Your task to perform on an android device: open app "YouTube Kids" (install if not already installed), go to login, and select forgot password Image 0: 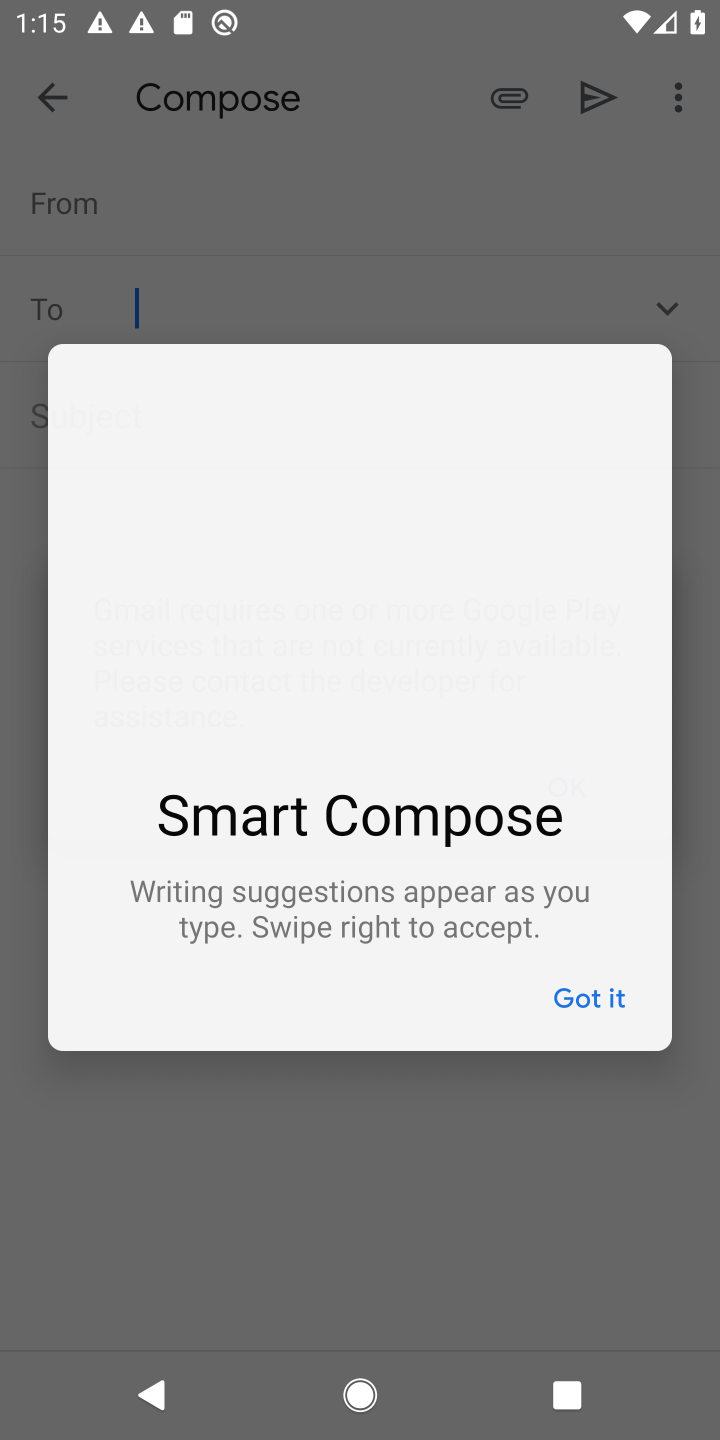
Step 0: press home button
Your task to perform on an android device: open app "YouTube Kids" (install if not already installed), go to login, and select forgot password Image 1: 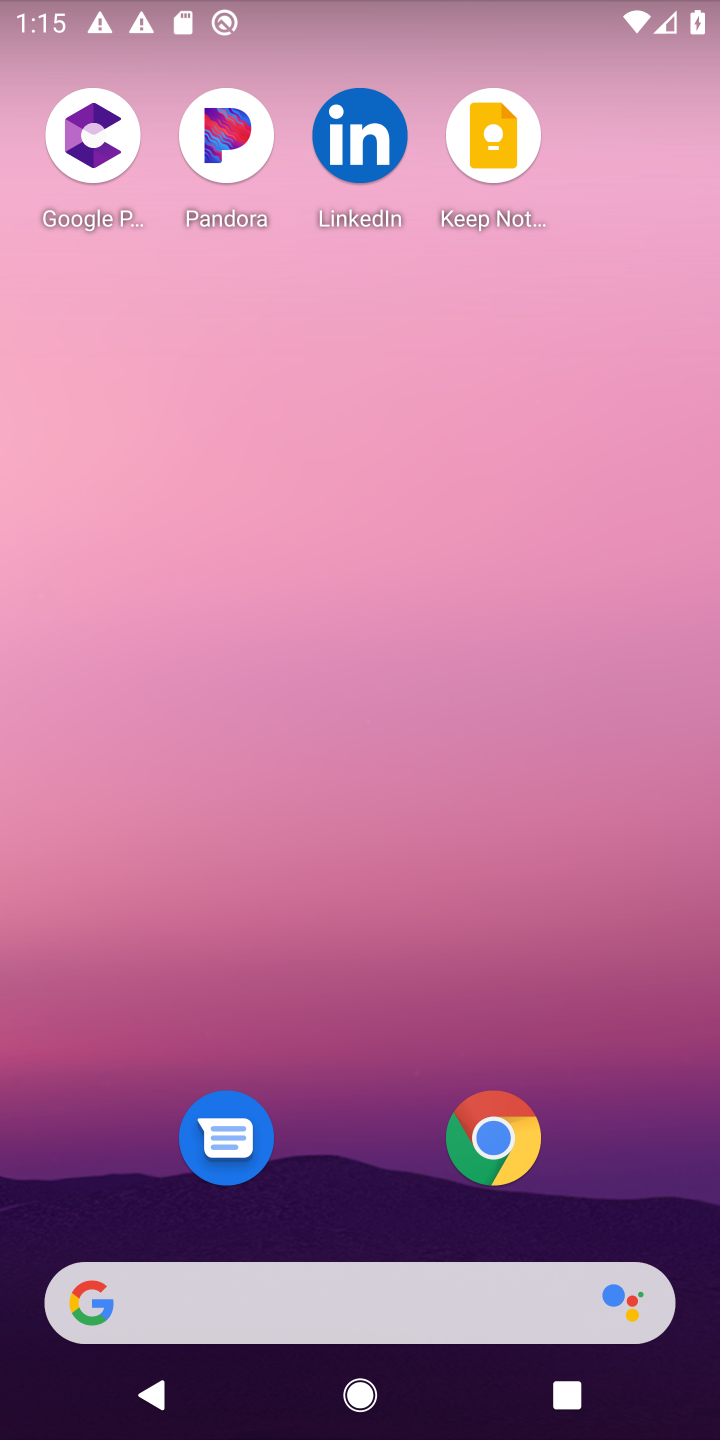
Step 1: drag from (646, 988) to (651, 104)
Your task to perform on an android device: open app "YouTube Kids" (install if not already installed), go to login, and select forgot password Image 2: 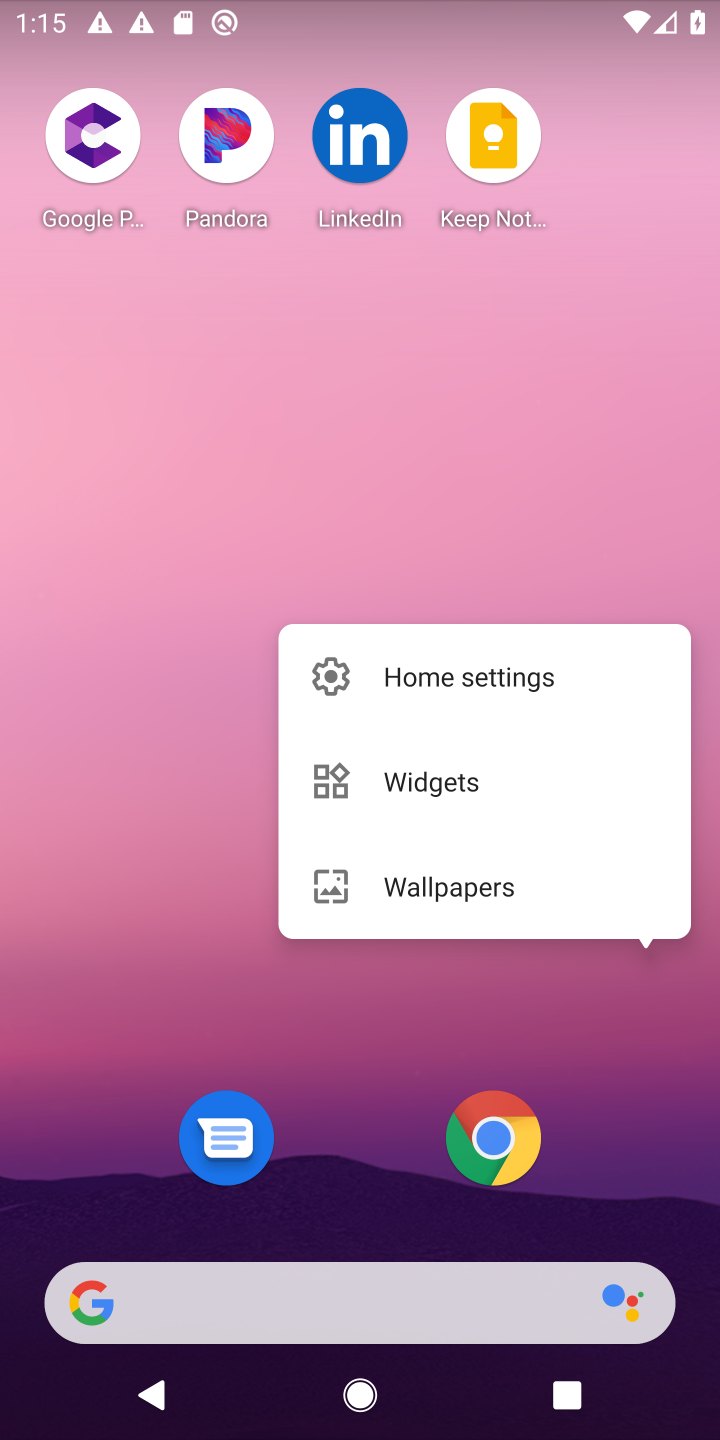
Step 2: click (123, 880)
Your task to perform on an android device: open app "YouTube Kids" (install if not already installed), go to login, and select forgot password Image 3: 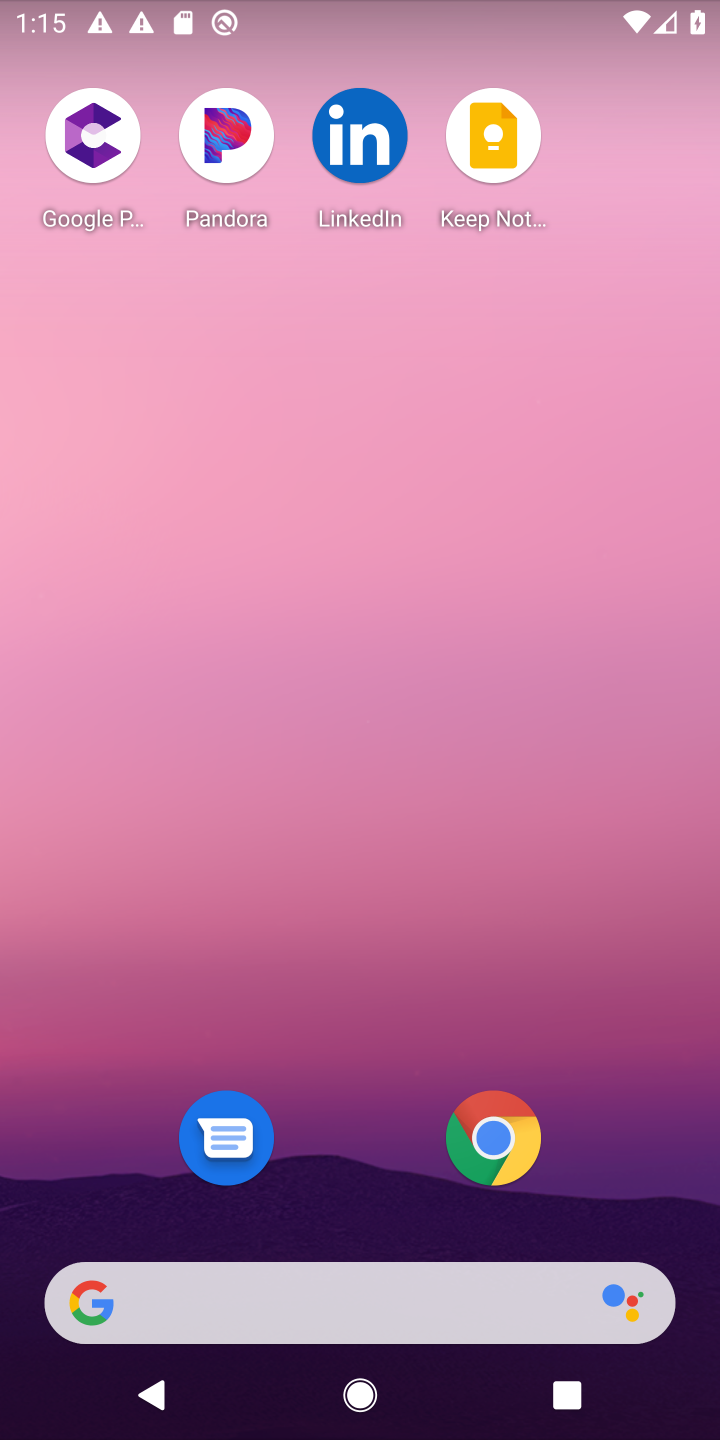
Step 3: drag from (611, 939) to (594, 68)
Your task to perform on an android device: open app "YouTube Kids" (install if not already installed), go to login, and select forgot password Image 4: 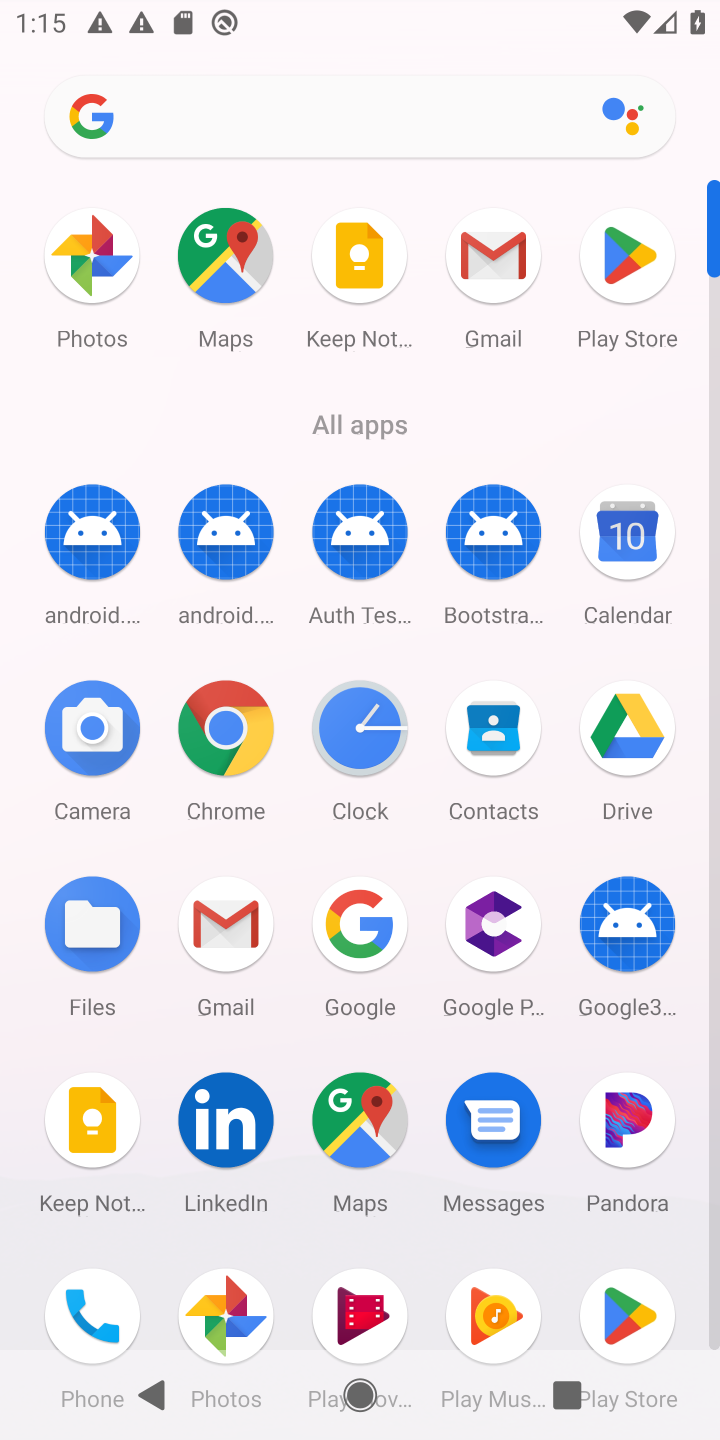
Step 4: click (615, 268)
Your task to perform on an android device: open app "YouTube Kids" (install if not already installed), go to login, and select forgot password Image 5: 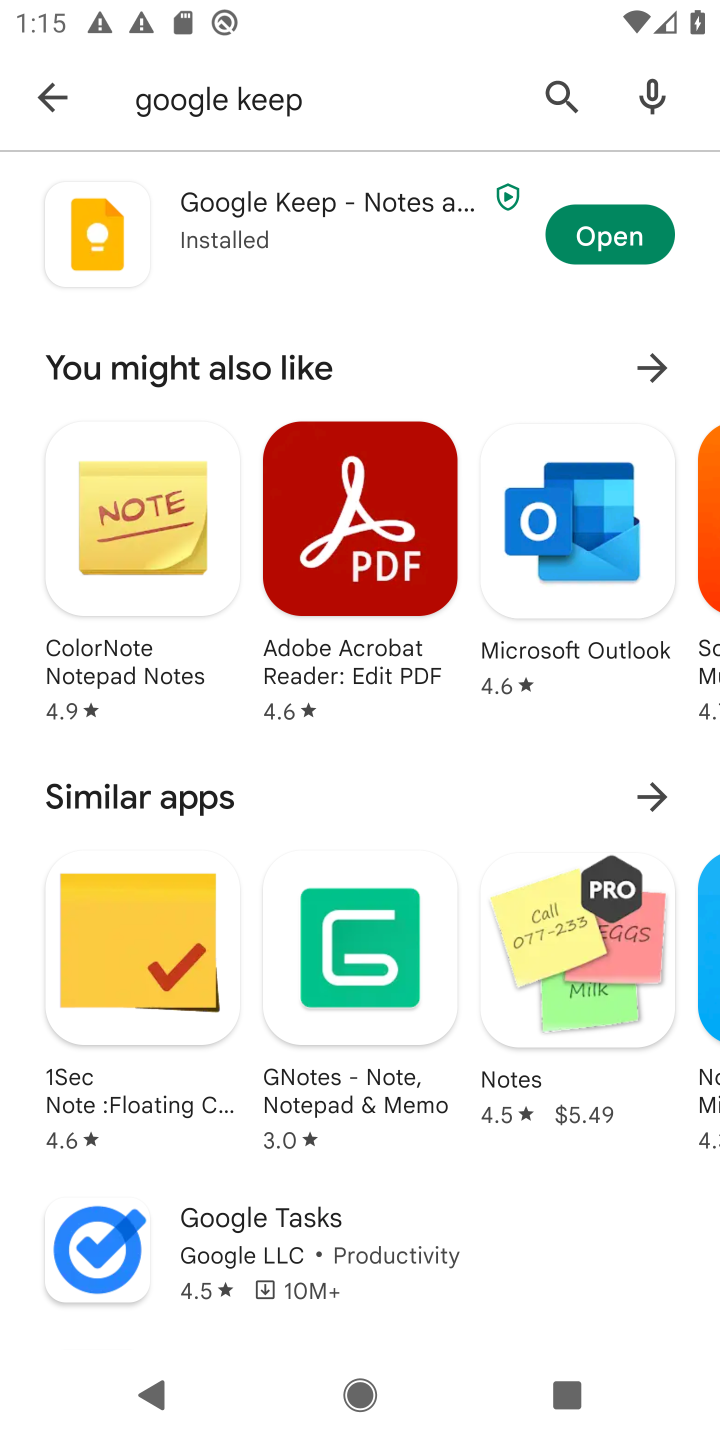
Step 5: click (552, 77)
Your task to perform on an android device: open app "YouTube Kids" (install if not already installed), go to login, and select forgot password Image 6: 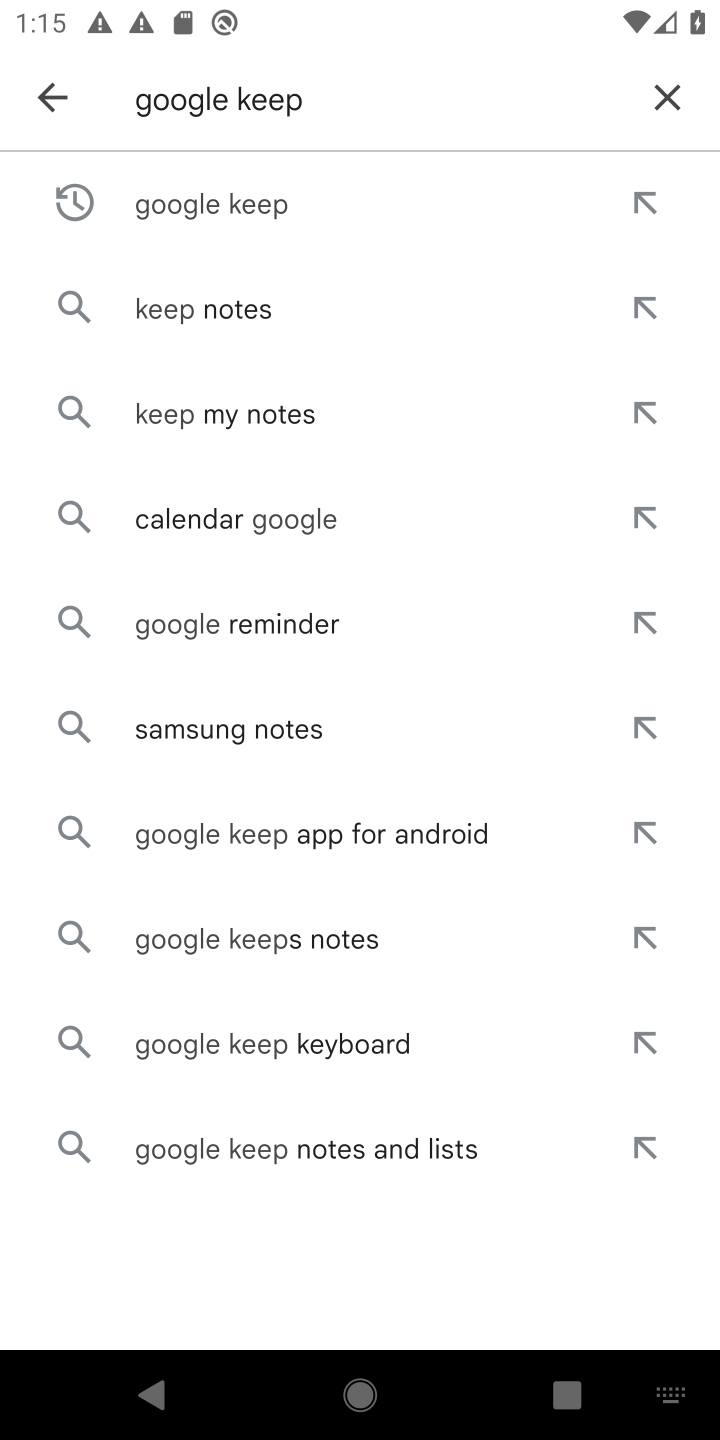
Step 6: click (663, 80)
Your task to perform on an android device: open app "YouTube Kids" (install if not already installed), go to login, and select forgot password Image 7: 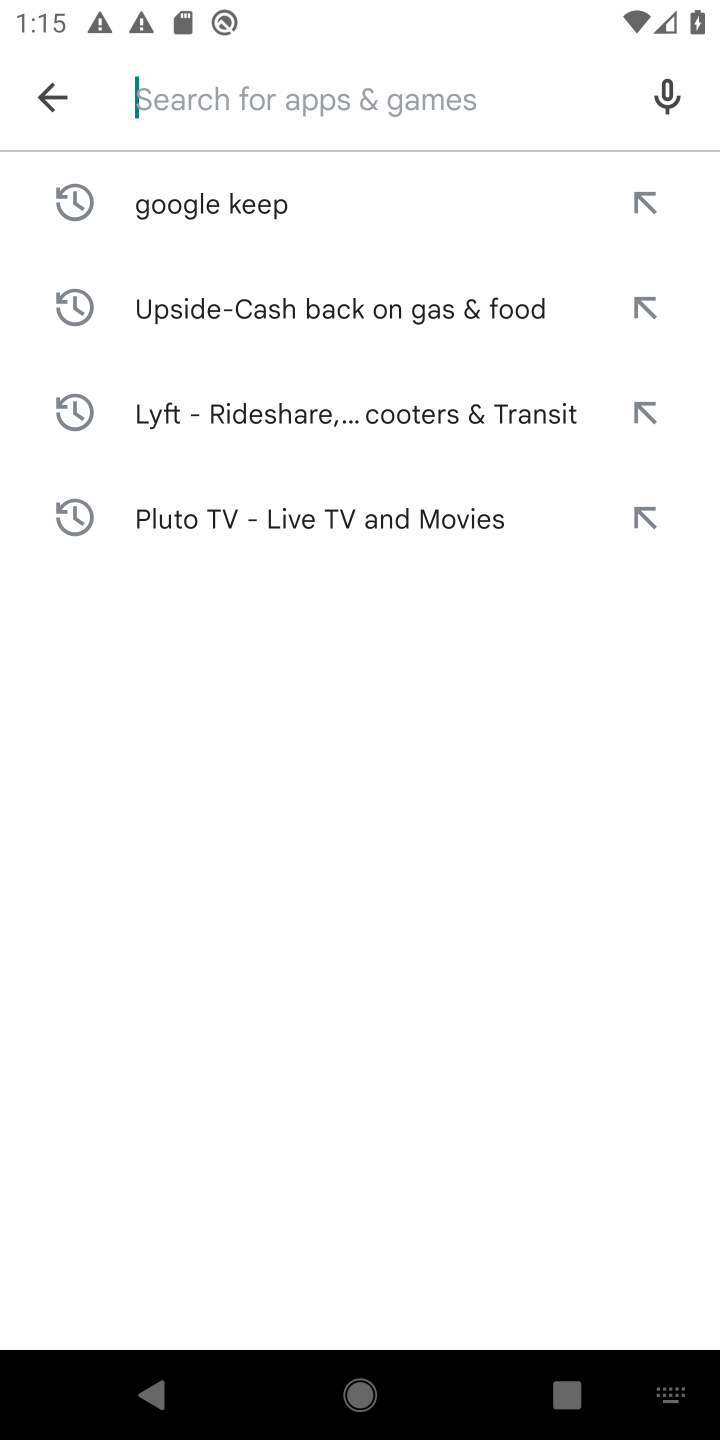
Step 7: press enter
Your task to perform on an android device: open app "YouTube Kids" (install if not already installed), go to login, and select forgot password Image 8: 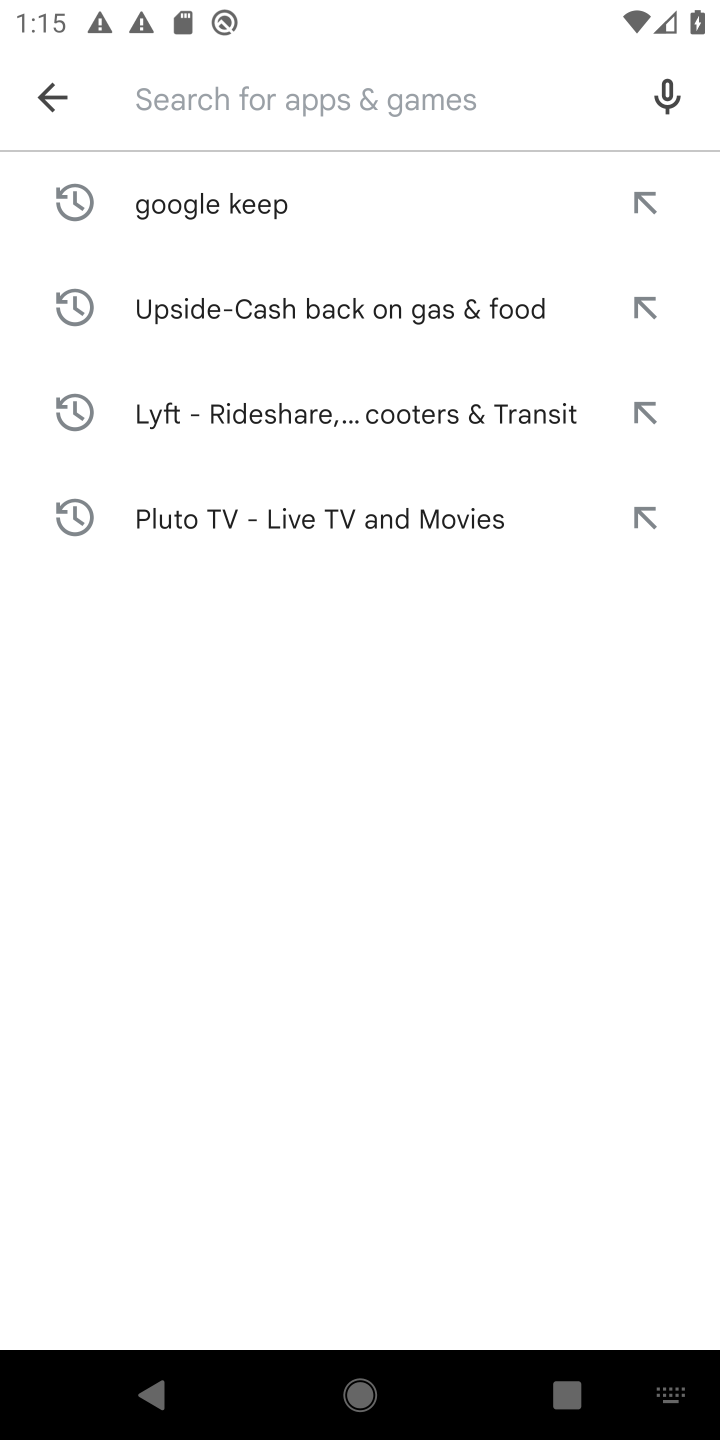
Step 8: type "YouTube Kids"
Your task to perform on an android device: open app "YouTube Kids" (install if not already installed), go to login, and select forgot password Image 9: 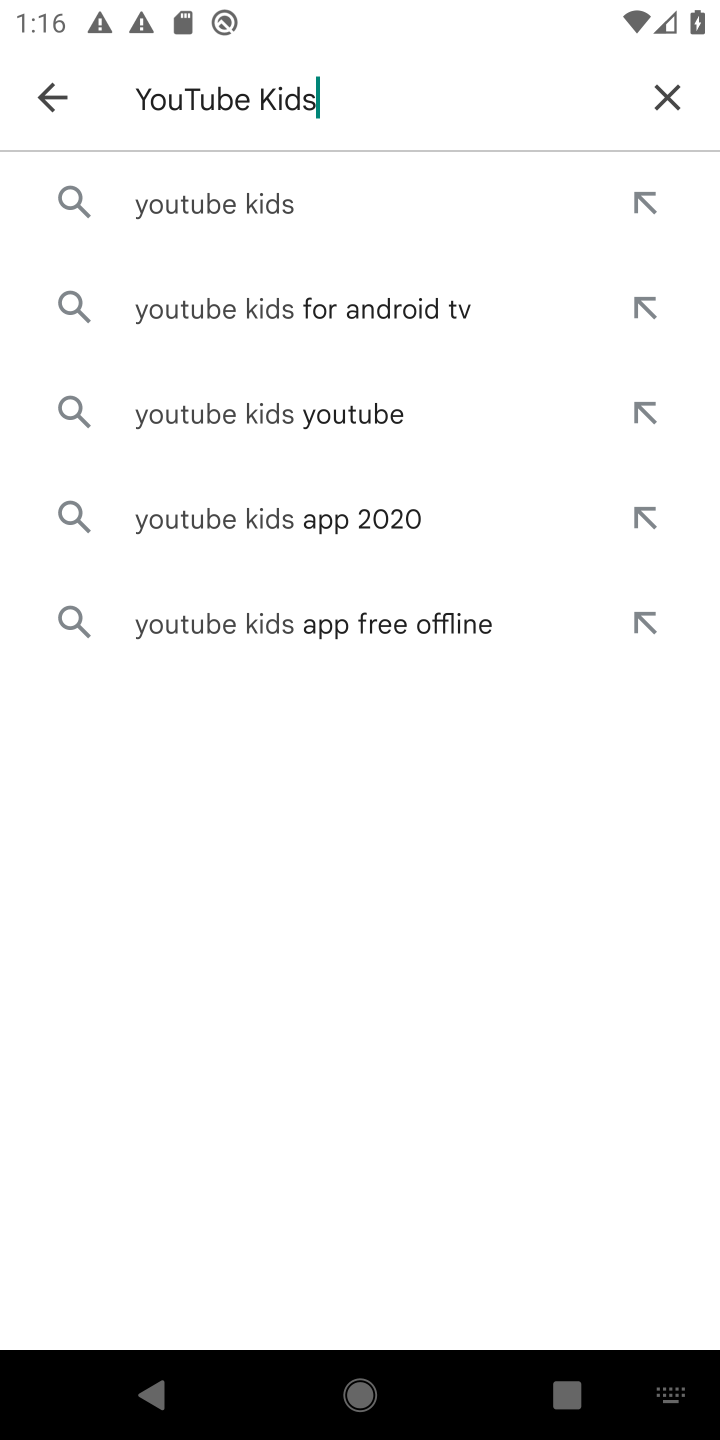
Step 9: click (282, 200)
Your task to perform on an android device: open app "YouTube Kids" (install if not already installed), go to login, and select forgot password Image 10: 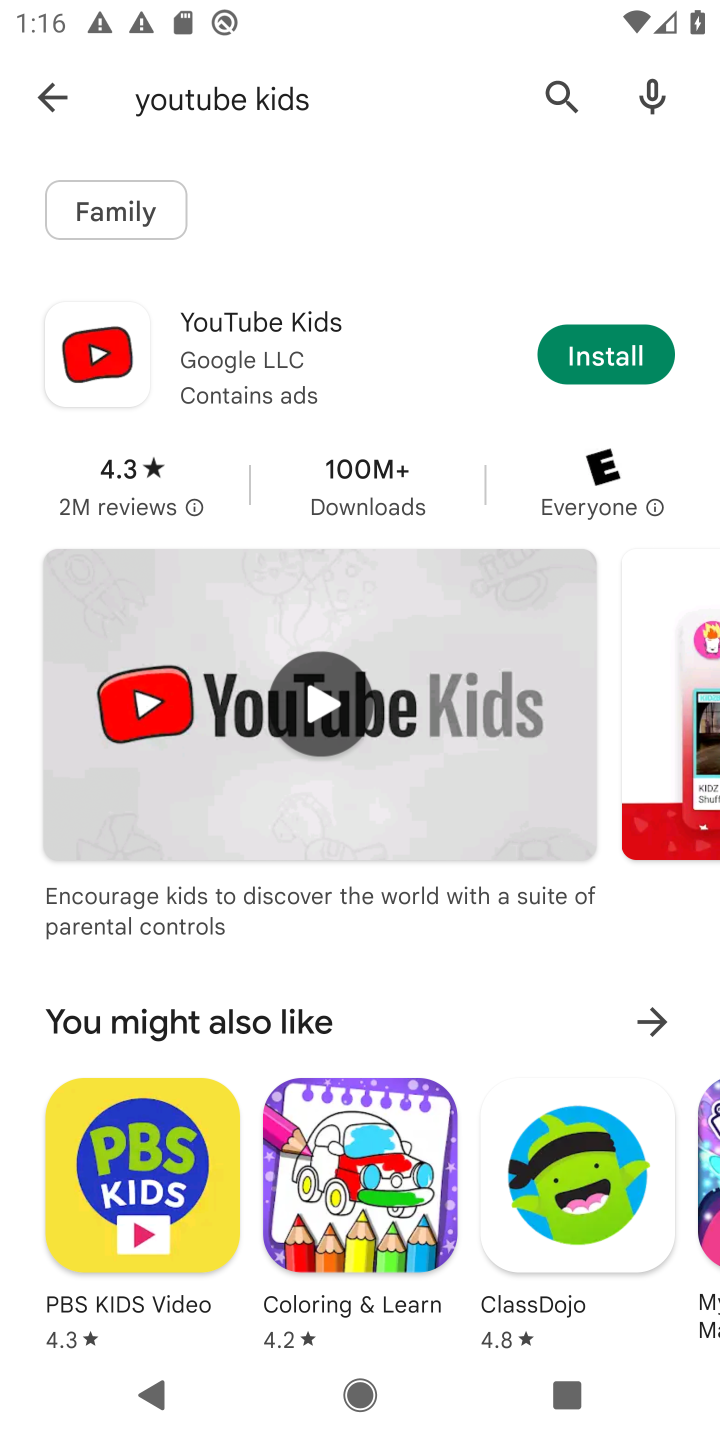
Step 10: click (637, 350)
Your task to perform on an android device: open app "YouTube Kids" (install if not already installed), go to login, and select forgot password Image 11: 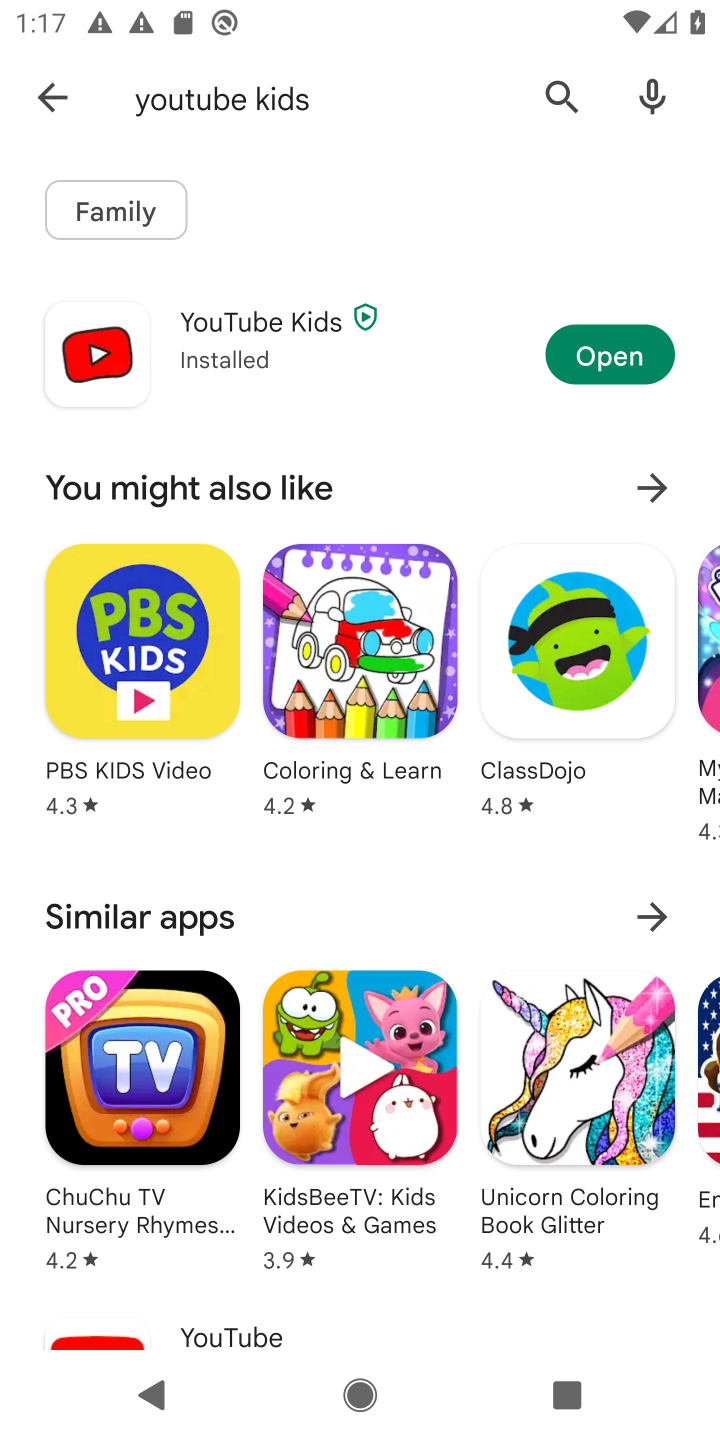
Step 11: click (591, 336)
Your task to perform on an android device: open app "YouTube Kids" (install if not already installed), go to login, and select forgot password Image 12: 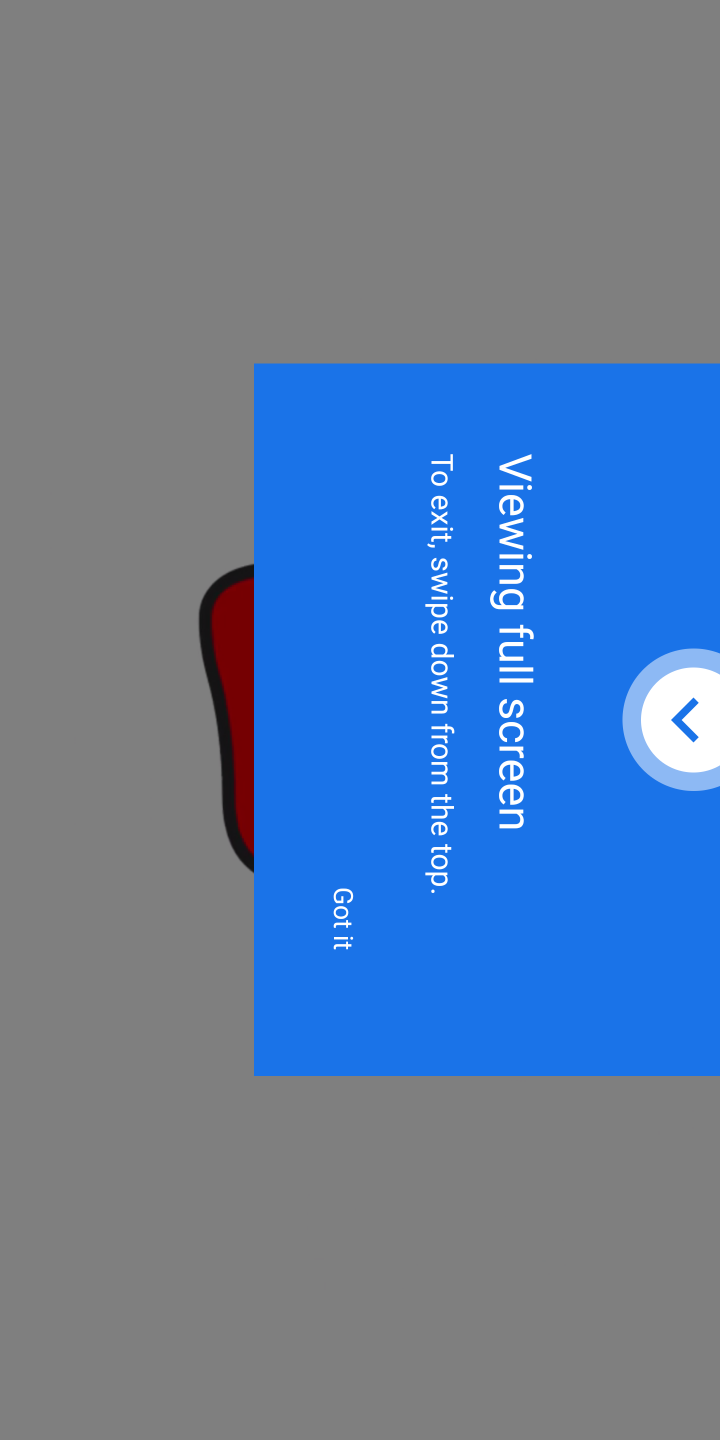
Step 12: task complete